Your task to perform on an android device: Show the shopping cart on ebay.com. Search for asus zenbook on ebay.com, select the first entry, and add it to the cart. Image 0: 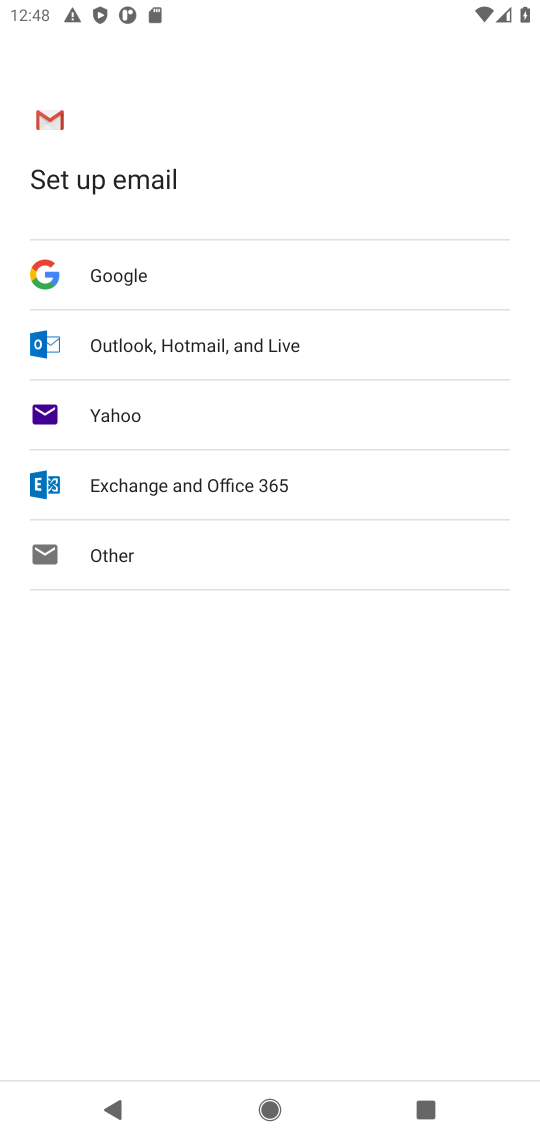
Step 0: press home button
Your task to perform on an android device: Show the shopping cart on ebay.com. Search for asus zenbook on ebay.com, select the first entry, and add it to the cart. Image 1: 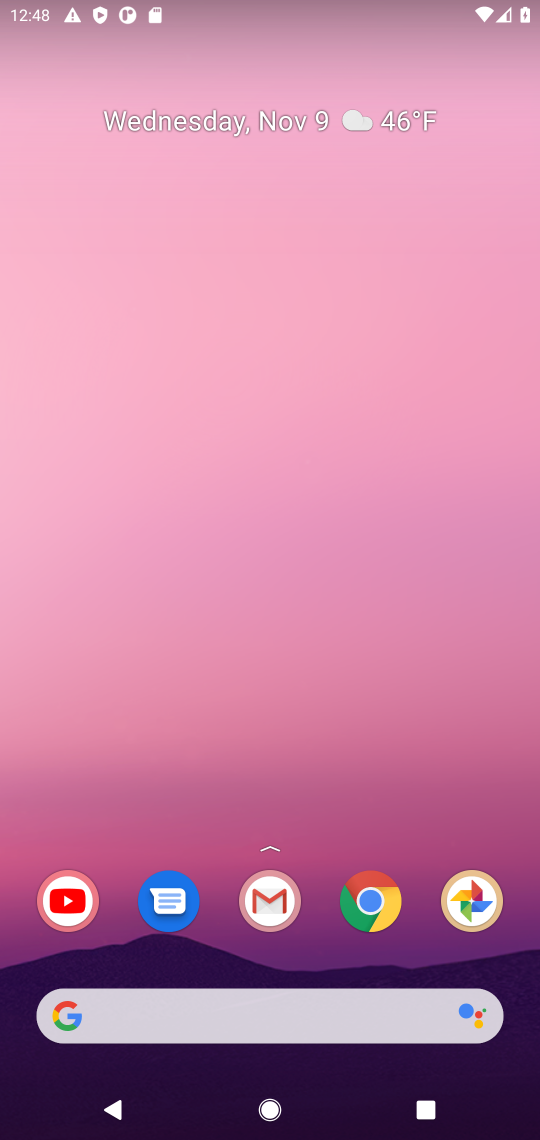
Step 1: click (367, 908)
Your task to perform on an android device: Show the shopping cart on ebay.com. Search for asus zenbook on ebay.com, select the first entry, and add it to the cart. Image 2: 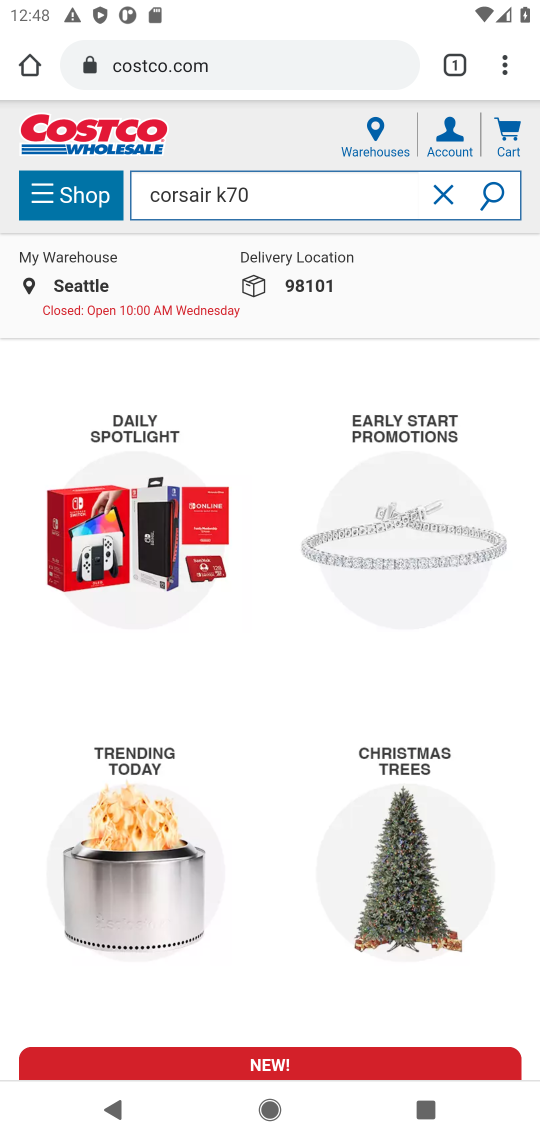
Step 2: click (22, 70)
Your task to perform on an android device: Show the shopping cart on ebay.com. Search for asus zenbook on ebay.com, select the first entry, and add it to the cart. Image 3: 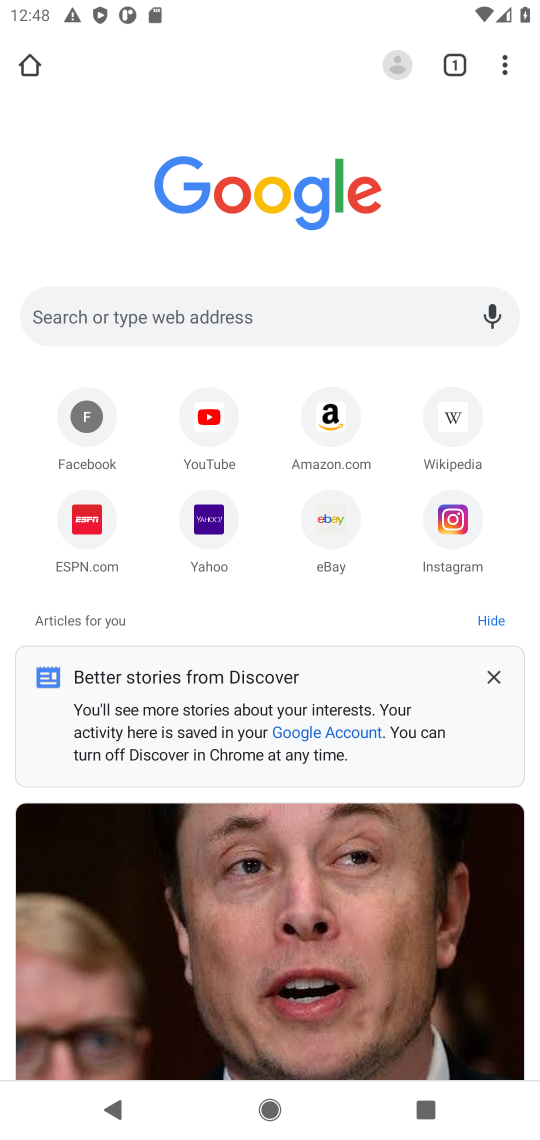
Step 3: click (314, 322)
Your task to perform on an android device: Show the shopping cart on ebay.com. Search for asus zenbook on ebay.com, select the first entry, and add it to the cart. Image 4: 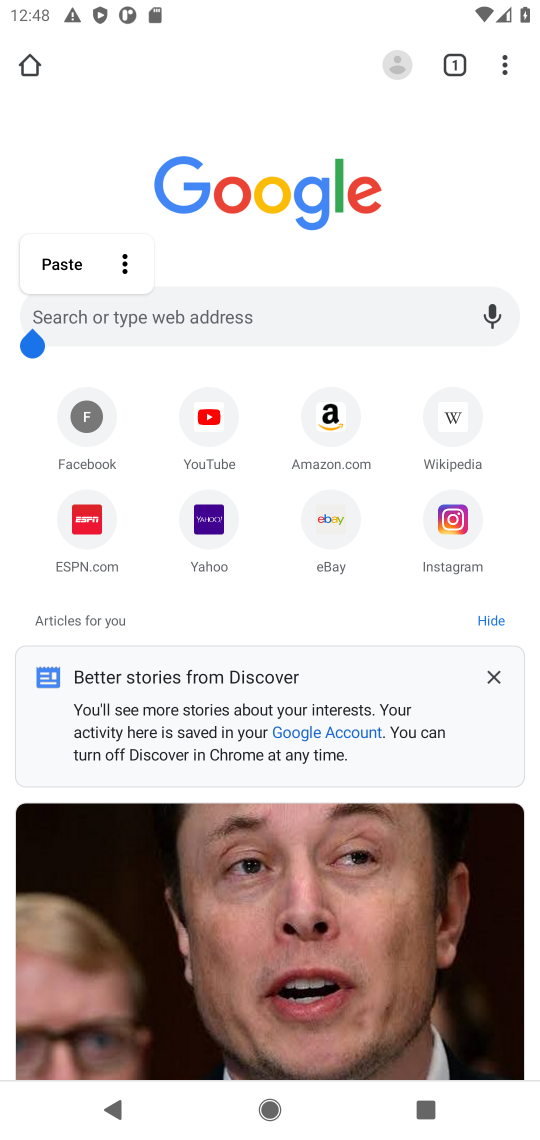
Step 4: click (356, 320)
Your task to perform on an android device: Show the shopping cart on ebay.com. Search for asus zenbook on ebay.com, select the first entry, and add it to the cart. Image 5: 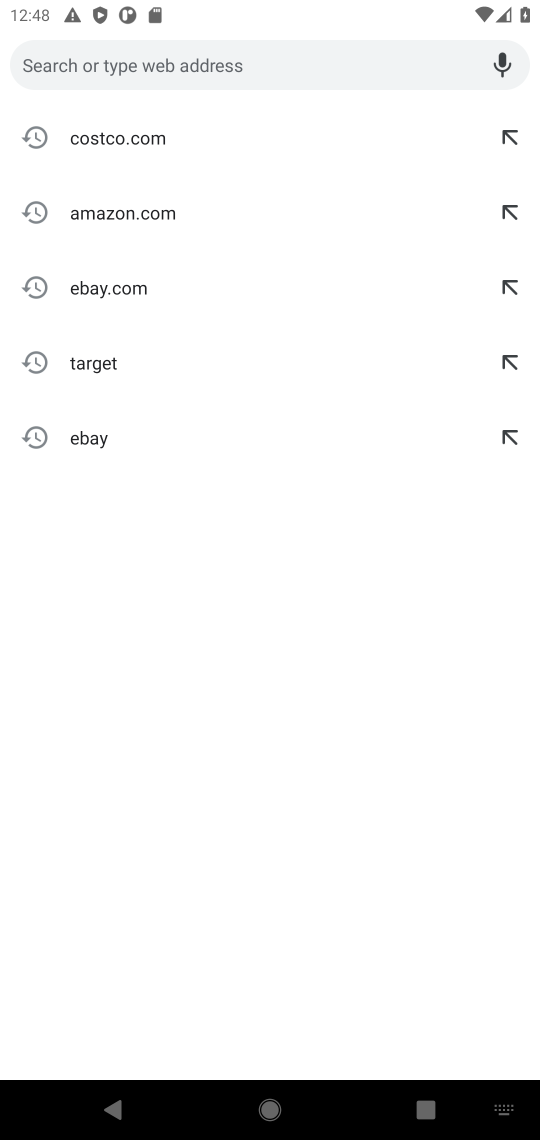
Step 5: click (128, 278)
Your task to perform on an android device: Show the shopping cart on ebay.com. Search for asus zenbook on ebay.com, select the first entry, and add it to the cart. Image 6: 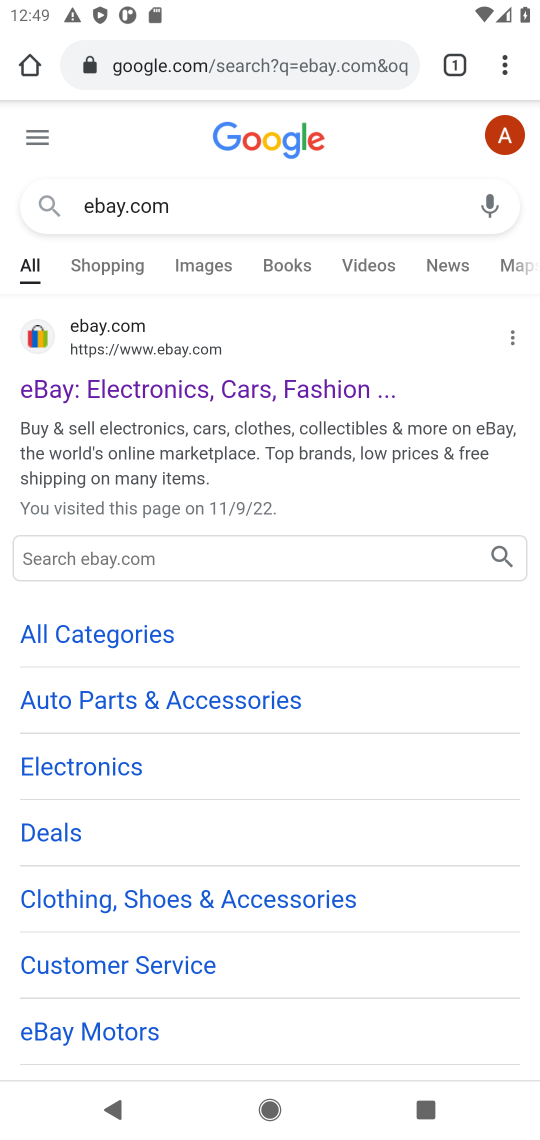
Step 6: click (122, 343)
Your task to perform on an android device: Show the shopping cart on ebay.com. Search for asus zenbook on ebay.com, select the first entry, and add it to the cart. Image 7: 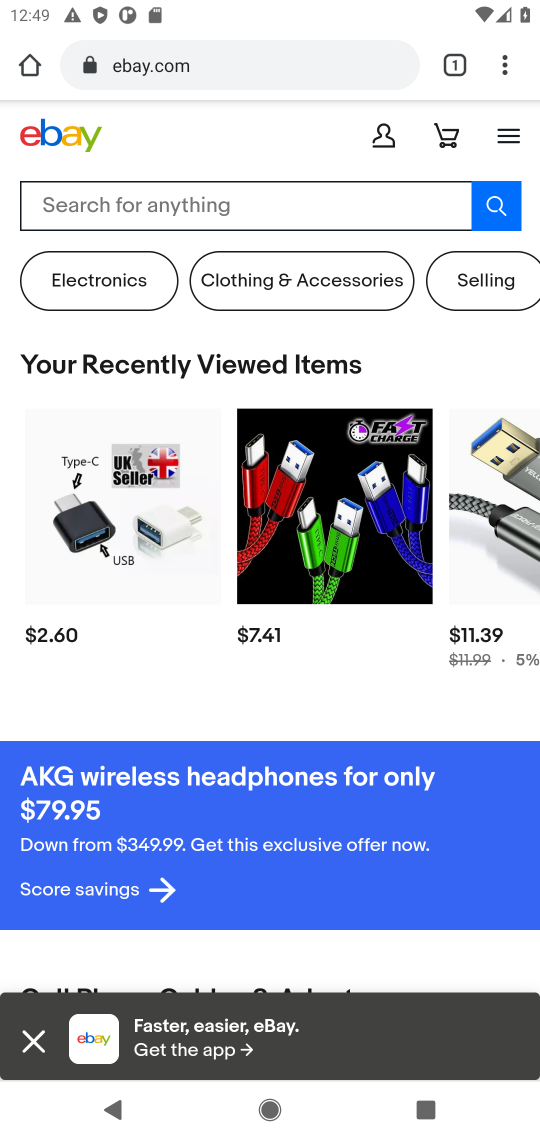
Step 7: click (291, 214)
Your task to perform on an android device: Show the shopping cart on ebay.com. Search for asus zenbook on ebay.com, select the first entry, and add it to the cart. Image 8: 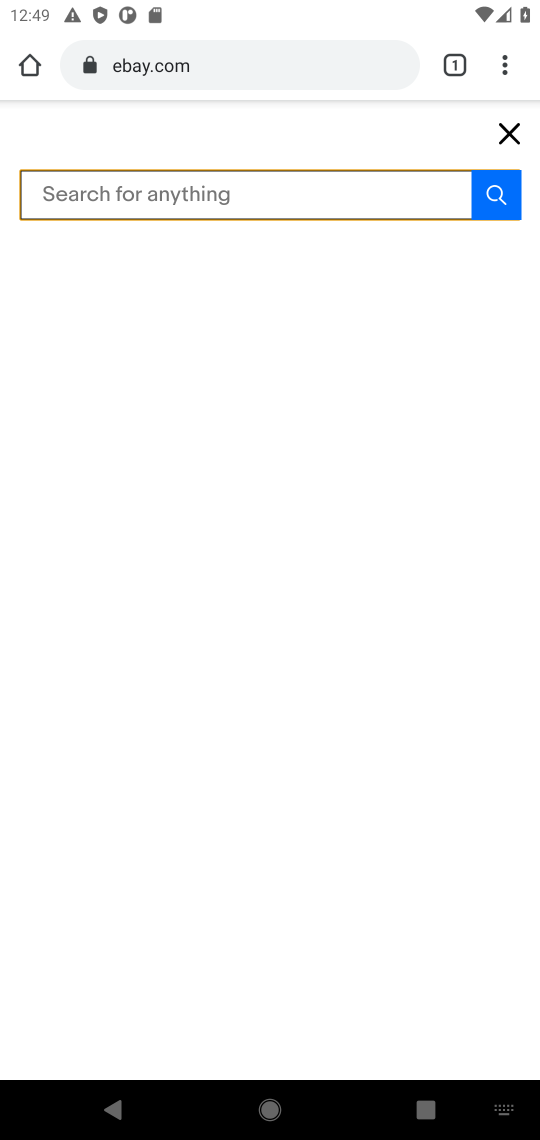
Step 8: type "asus zenbook"
Your task to perform on an android device: Show the shopping cart on ebay.com. Search for asus zenbook on ebay.com, select the first entry, and add it to the cart. Image 9: 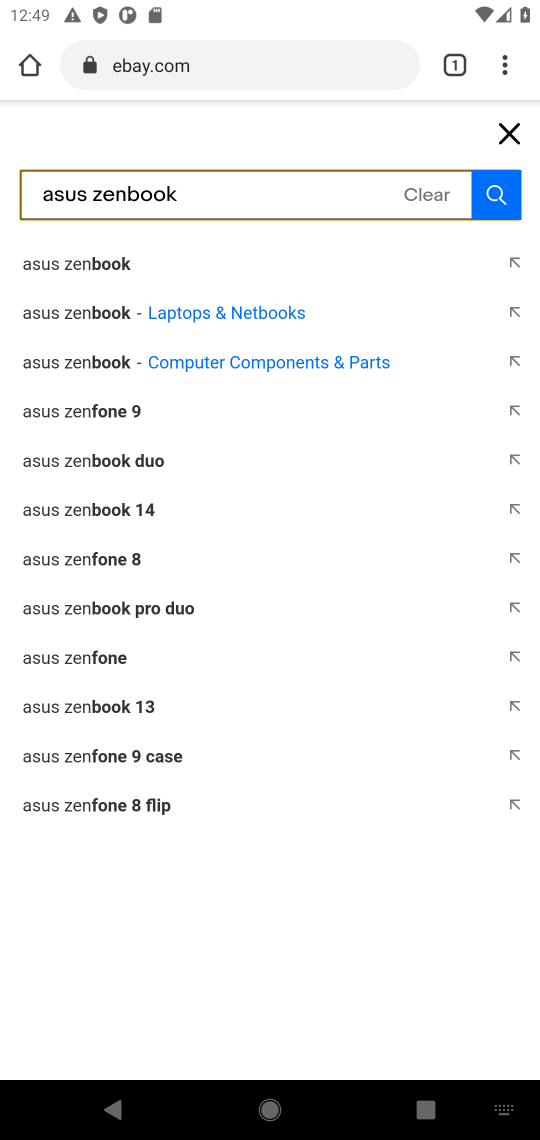
Step 9: click (101, 263)
Your task to perform on an android device: Show the shopping cart on ebay.com. Search for asus zenbook on ebay.com, select the first entry, and add it to the cart. Image 10: 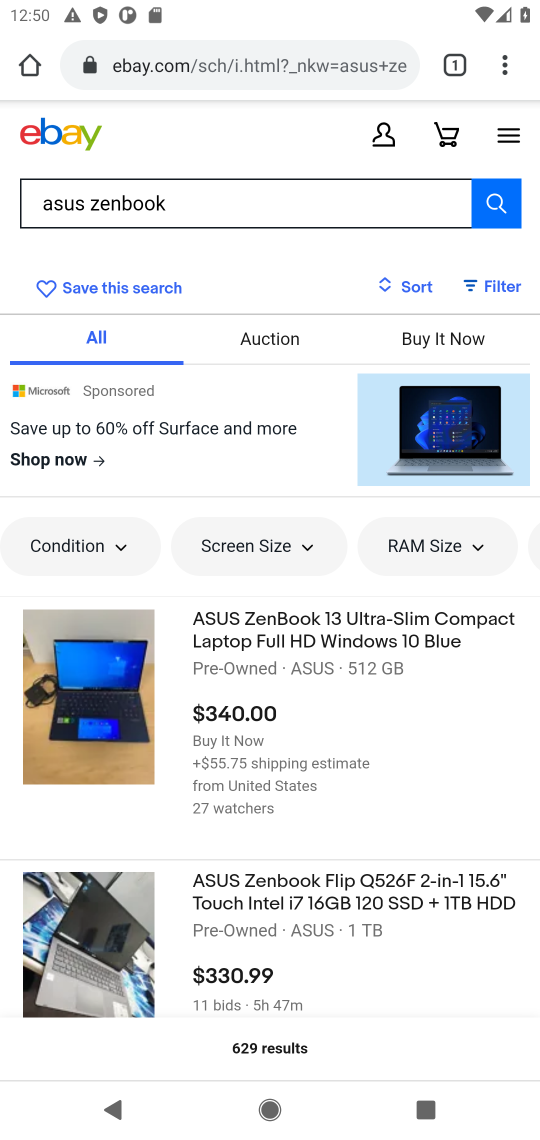
Step 10: click (120, 657)
Your task to perform on an android device: Show the shopping cart on ebay.com. Search for asus zenbook on ebay.com, select the first entry, and add it to the cart. Image 11: 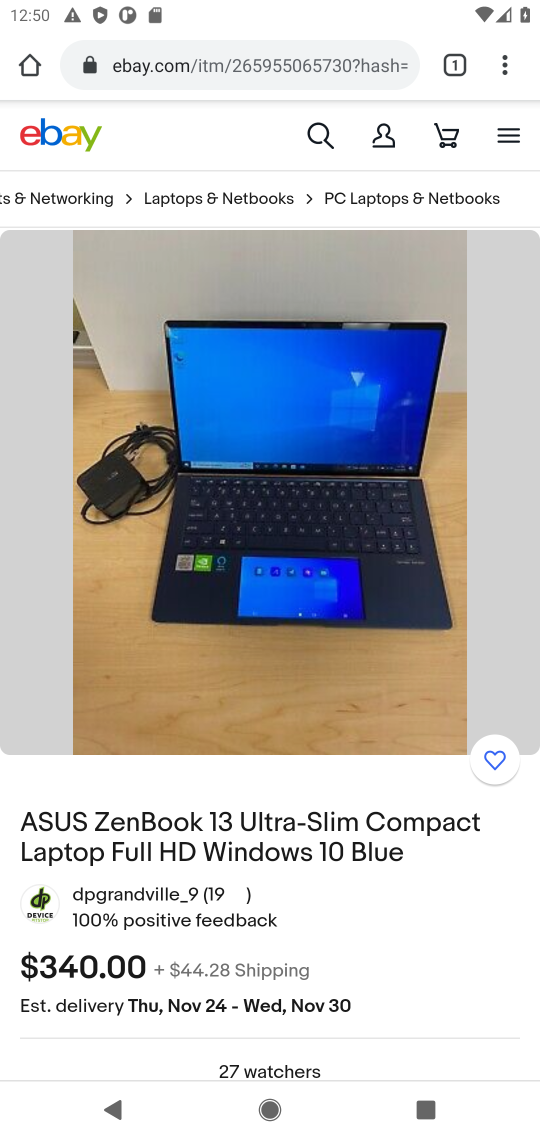
Step 11: drag from (375, 717) to (352, 283)
Your task to perform on an android device: Show the shopping cart on ebay.com. Search for asus zenbook on ebay.com, select the first entry, and add it to the cart. Image 12: 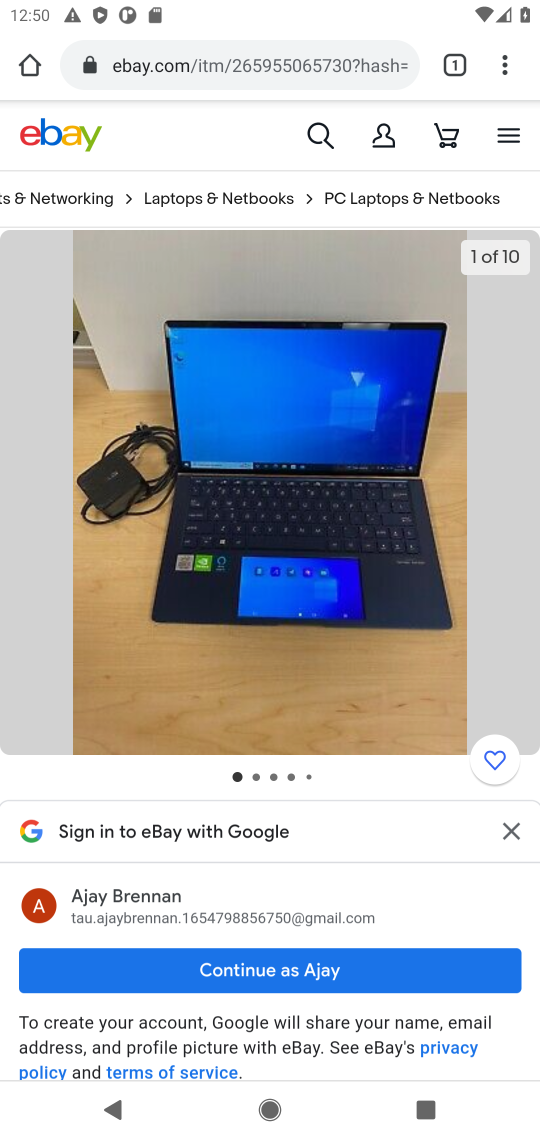
Step 12: drag from (407, 808) to (322, 233)
Your task to perform on an android device: Show the shopping cart on ebay.com. Search for asus zenbook on ebay.com, select the first entry, and add it to the cart. Image 13: 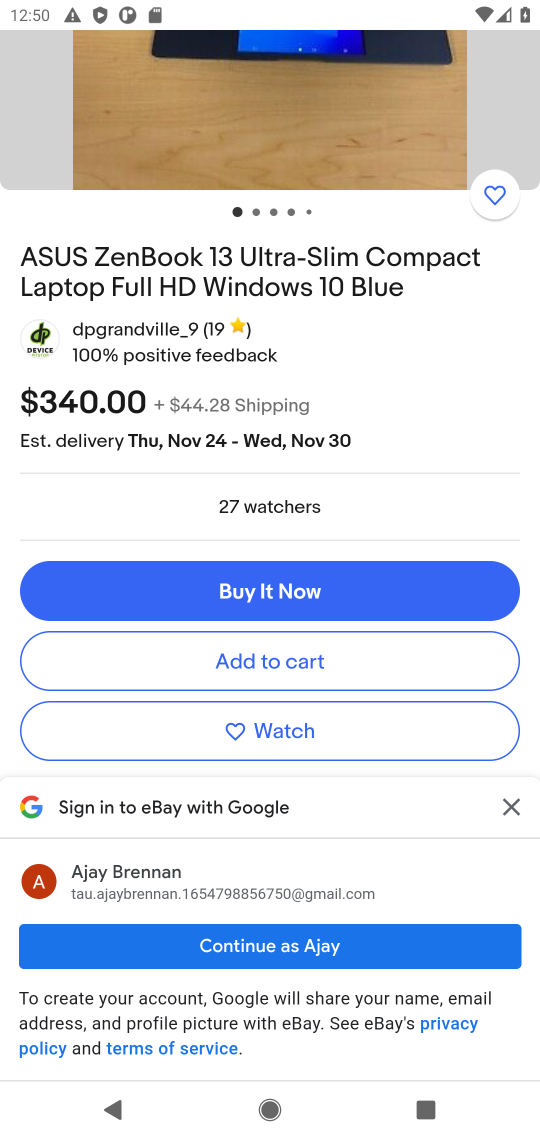
Step 13: click (502, 799)
Your task to perform on an android device: Show the shopping cart on ebay.com. Search for asus zenbook on ebay.com, select the first entry, and add it to the cart. Image 14: 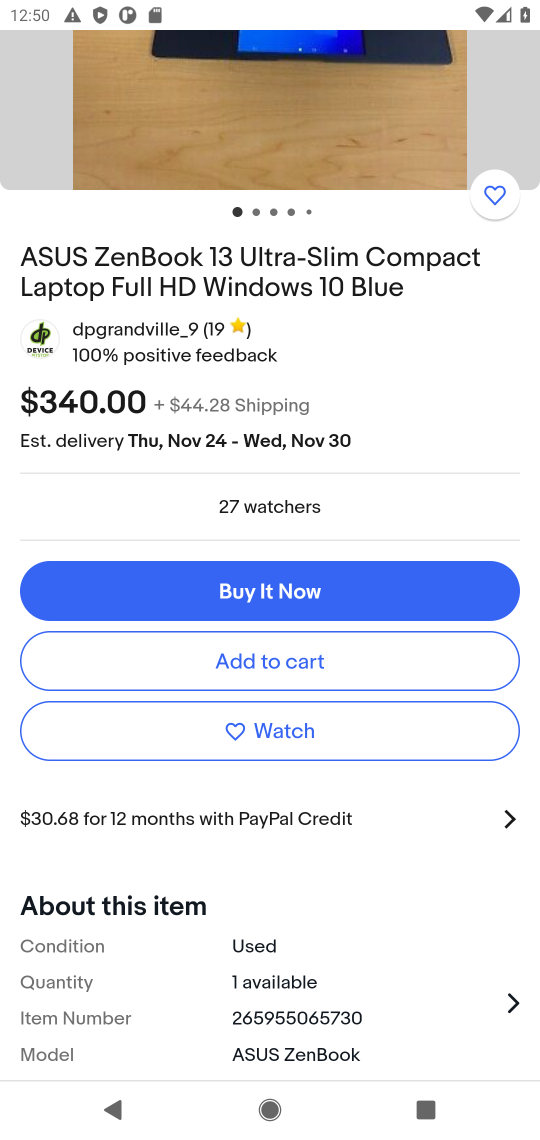
Step 14: click (282, 660)
Your task to perform on an android device: Show the shopping cart on ebay.com. Search for asus zenbook on ebay.com, select the first entry, and add it to the cart. Image 15: 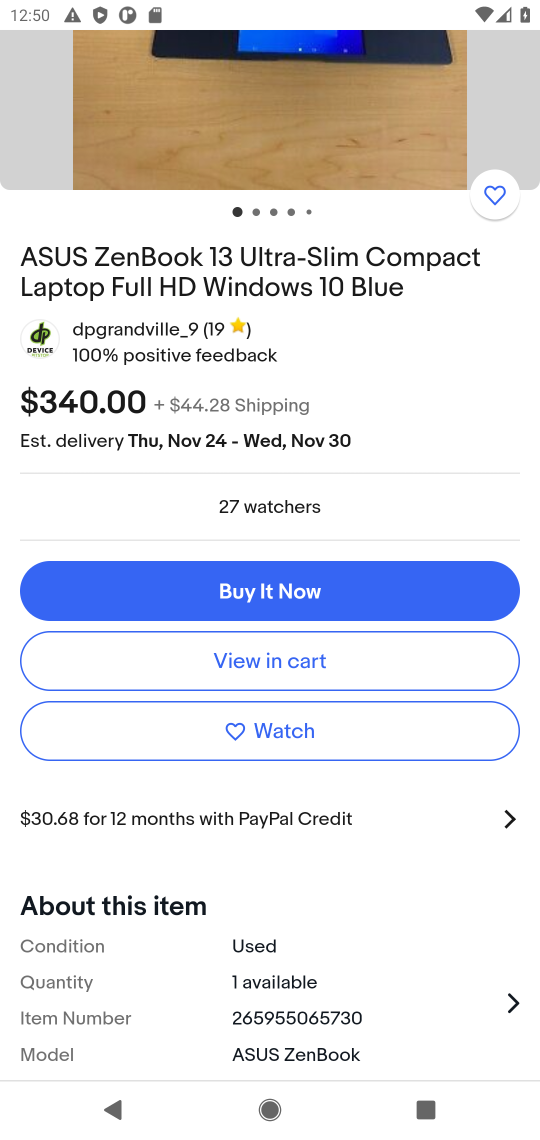
Step 15: click (282, 660)
Your task to perform on an android device: Show the shopping cart on ebay.com. Search for asus zenbook on ebay.com, select the first entry, and add it to the cart. Image 16: 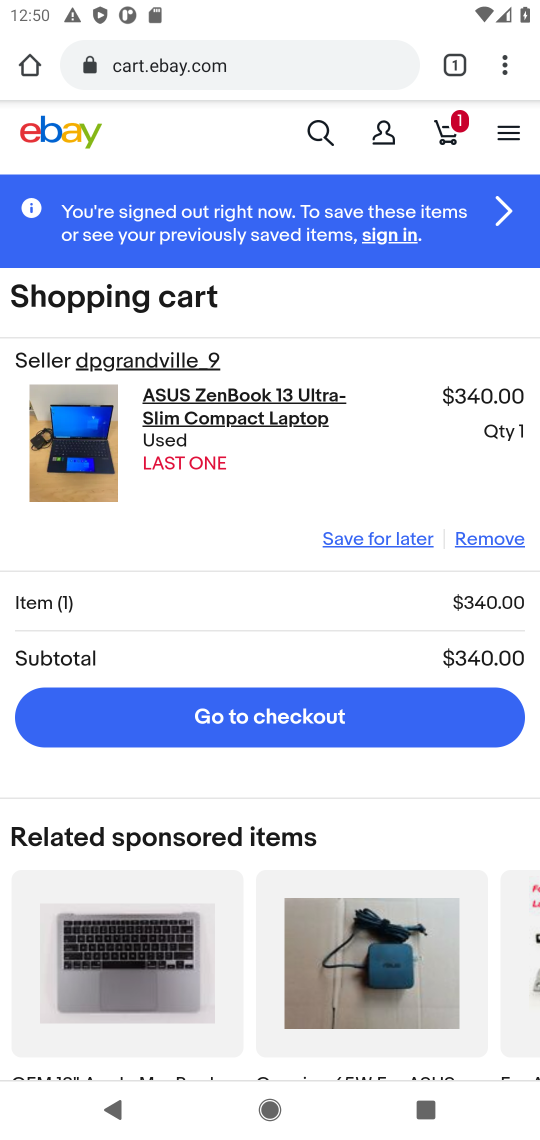
Step 16: task complete